Your task to perform on an android device: Add rayovac triple a to the cart on newegg.com Image 0: 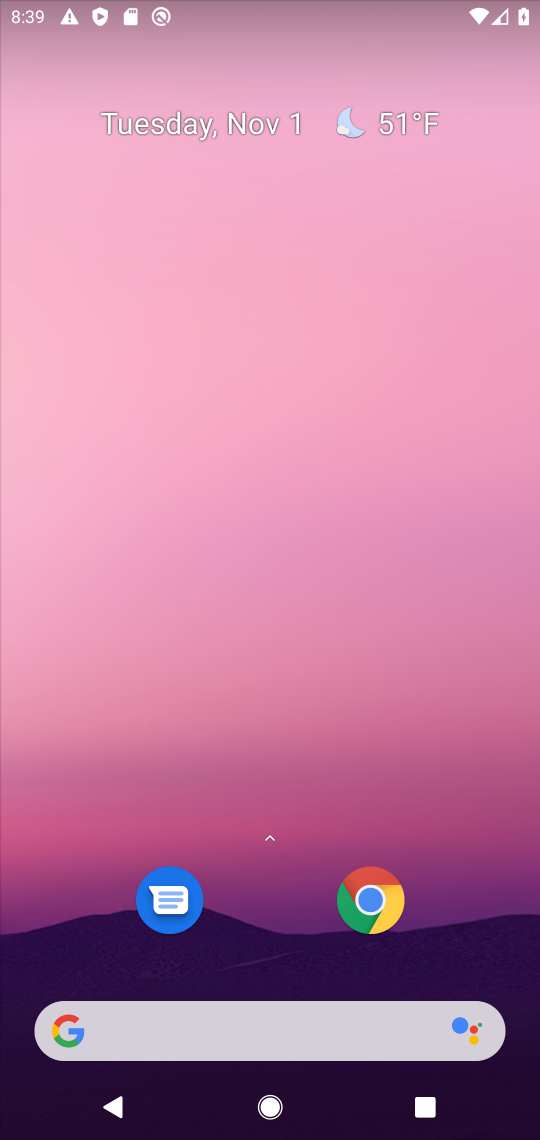
Step 0: drag from (297, 934) to (359, 4)
Your task to perform on an android device: Add rayovac triple a to the cart on newegg.com Image 1: 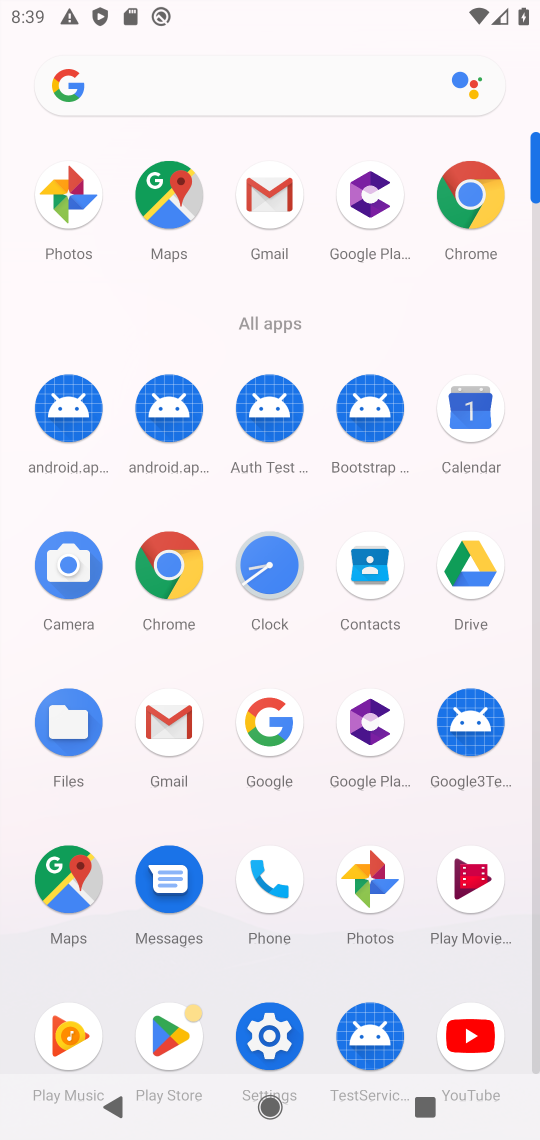
Step 1: click (170, 576)
Your task to perform on an android device: Add rayovac triple a to the cart on newegg.com Image 2: 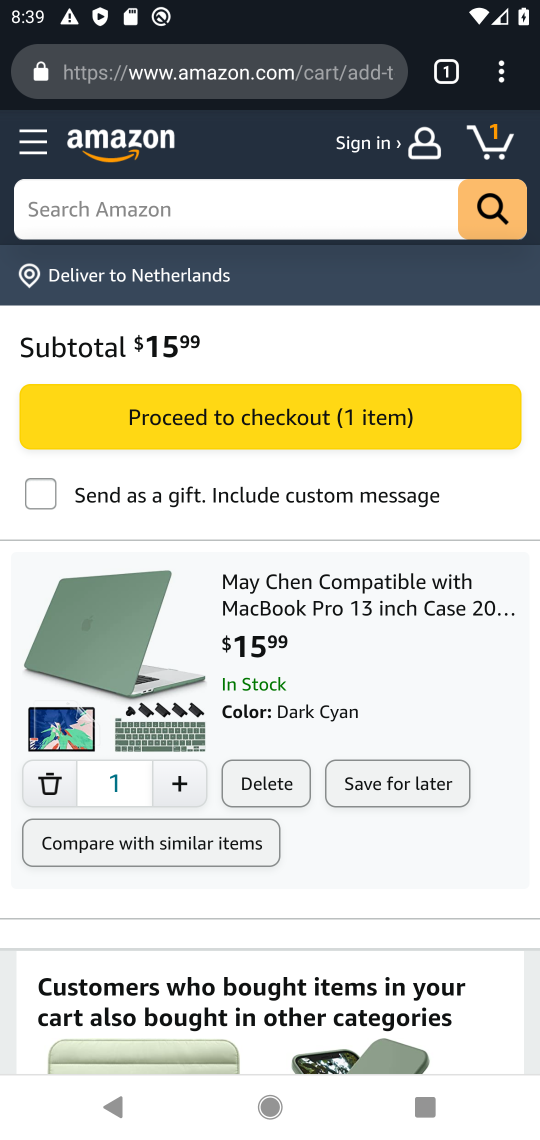
Step 2: click (227, 71)
Your task to perform on an android device: Add rayovac triple a to the cart on newegg.com Image 3: 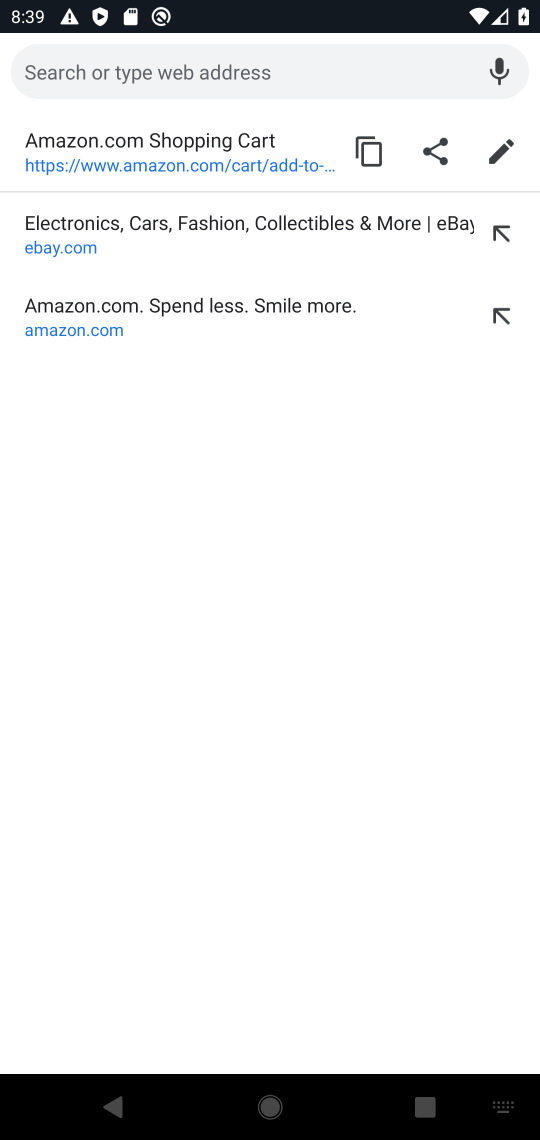
Step 3: type " newegg.com"
Your task to perform on an android device: Add rayovac triple a to the cart on newegg.com Image 4: 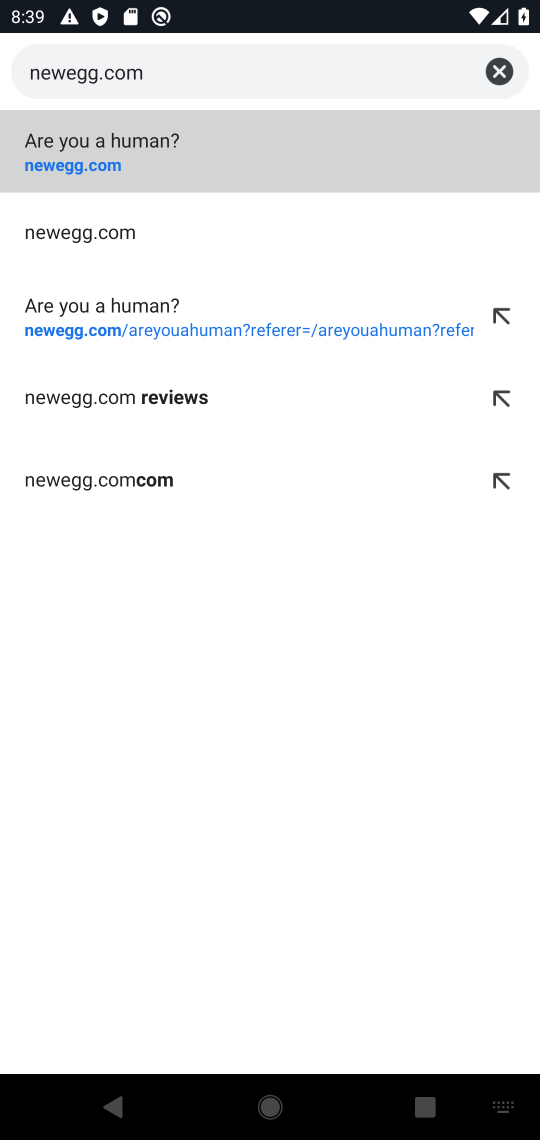
Step 4: click (67, 160)
Your task to perform on an android device: Add rayovac triple a to the cart on newegg.com Image 5: 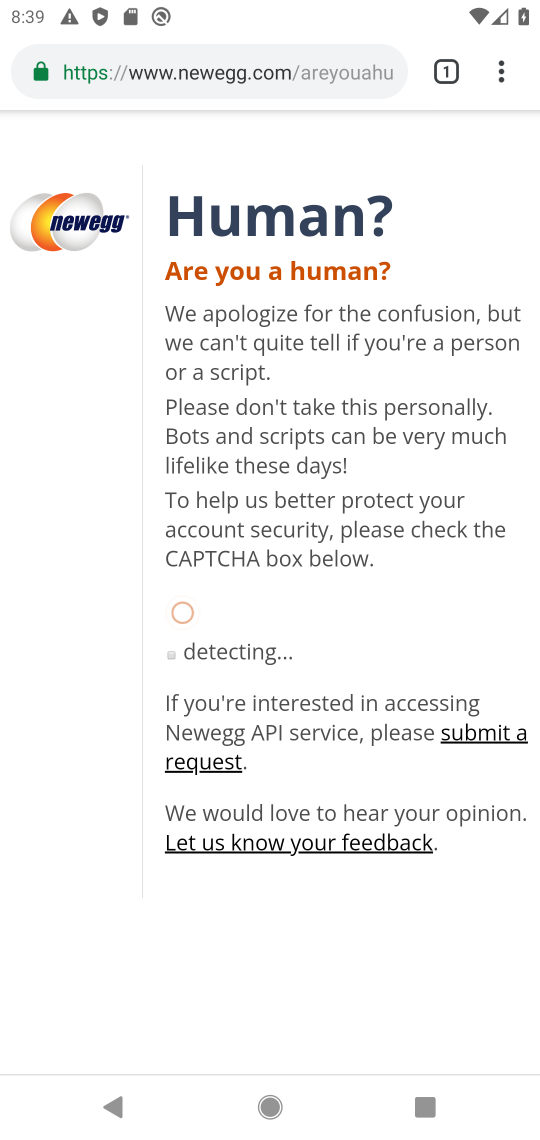
Step 5: task complete